Your task to perform on an android device: Open Reddit.com Image 0: 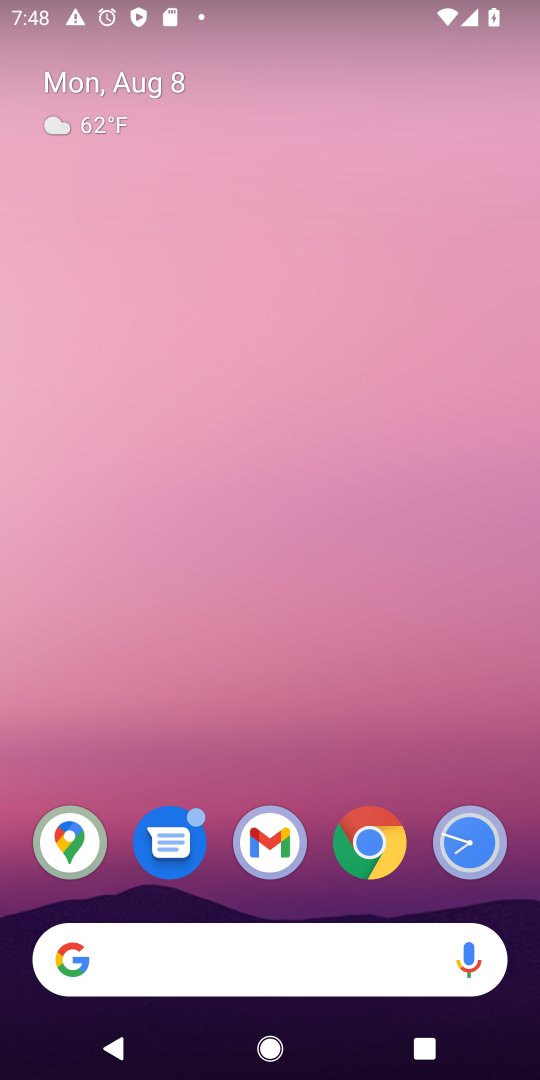
Step 0: click (371, 831)
Your task to perform on an android device: Open Reddit.com Image 1: 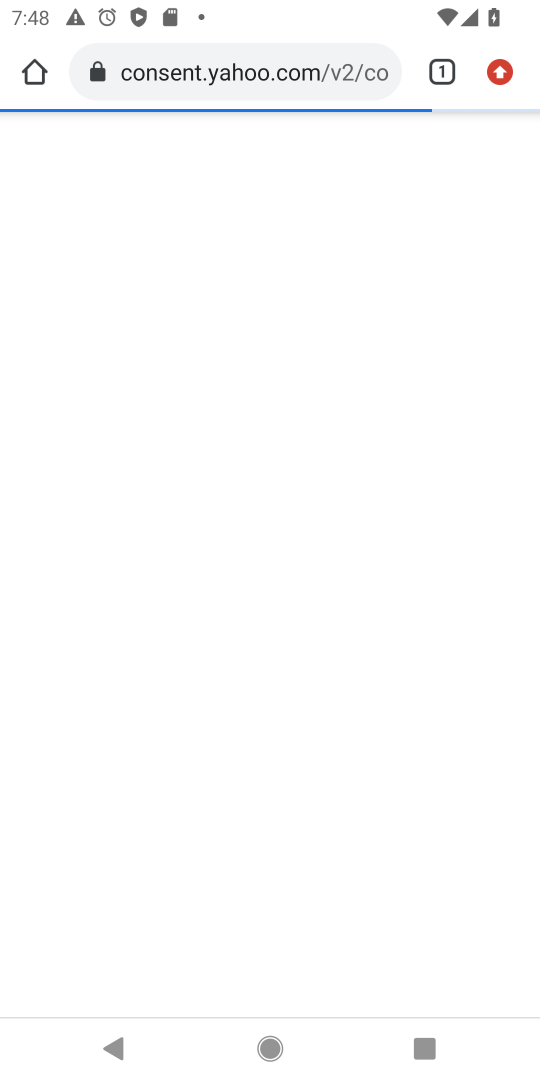
Step 1: click (331, 63)
Your task to perform on an android device: Open Reddit.com Image 2: 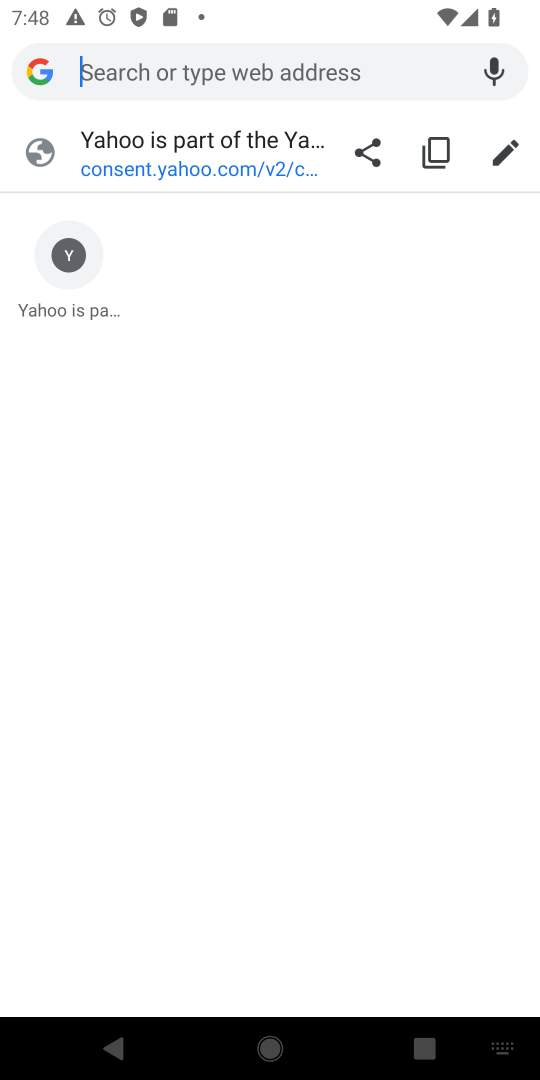
Step 2: type "Reddit.com"
Your task to perform on an android device: Open Reddit.com Image 3: 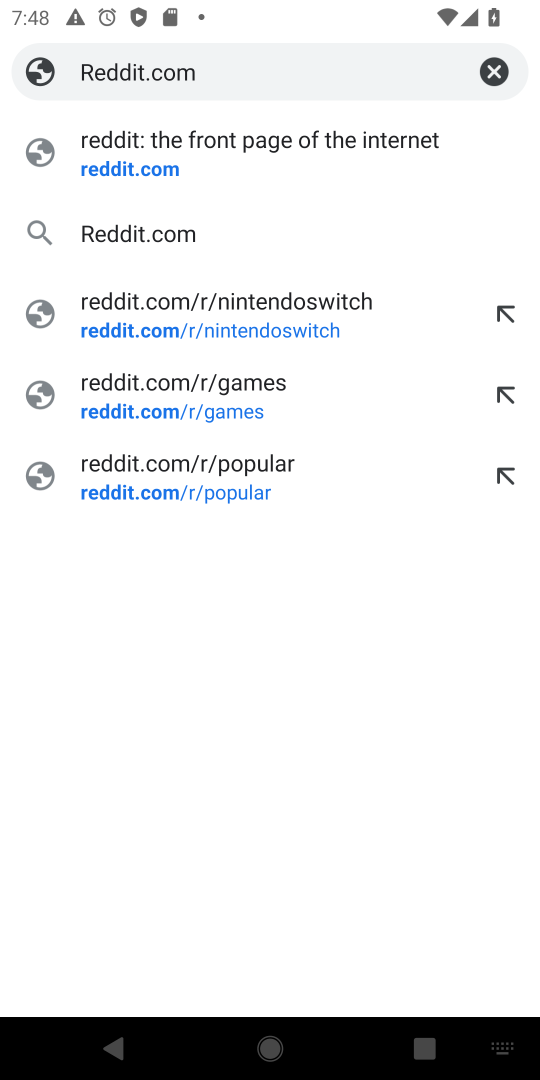
Step 3: click (158, 234)
Your task to perform on an android device: Open Reddit.com Image 4: 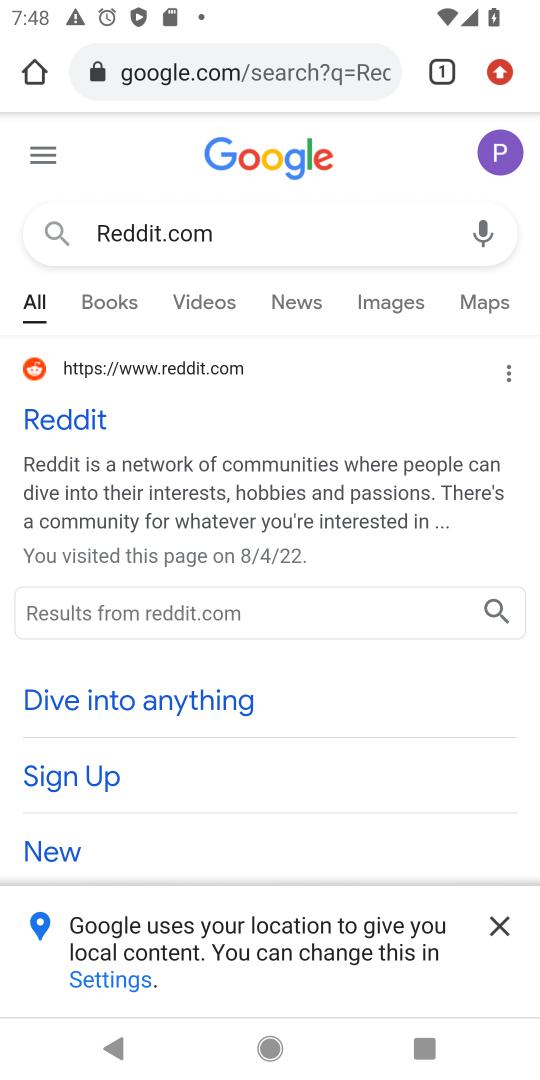
Step 4: click (31, 407)
Your task to perform on an android device: Open Reddit.com Image 5: 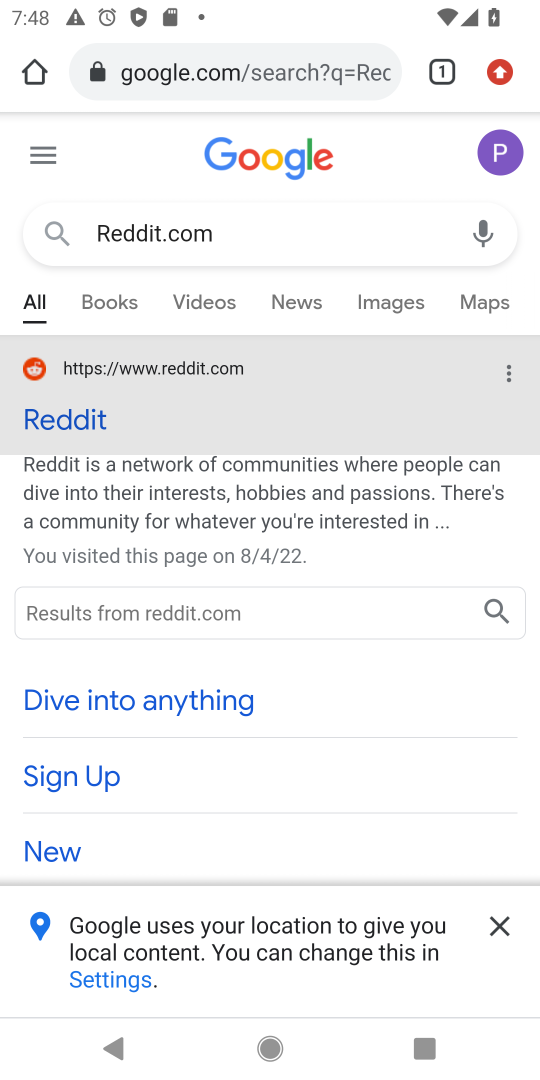
Step 5: click (109, 375)
Your task to perform on an android device: Open Reddit.com Image 6: 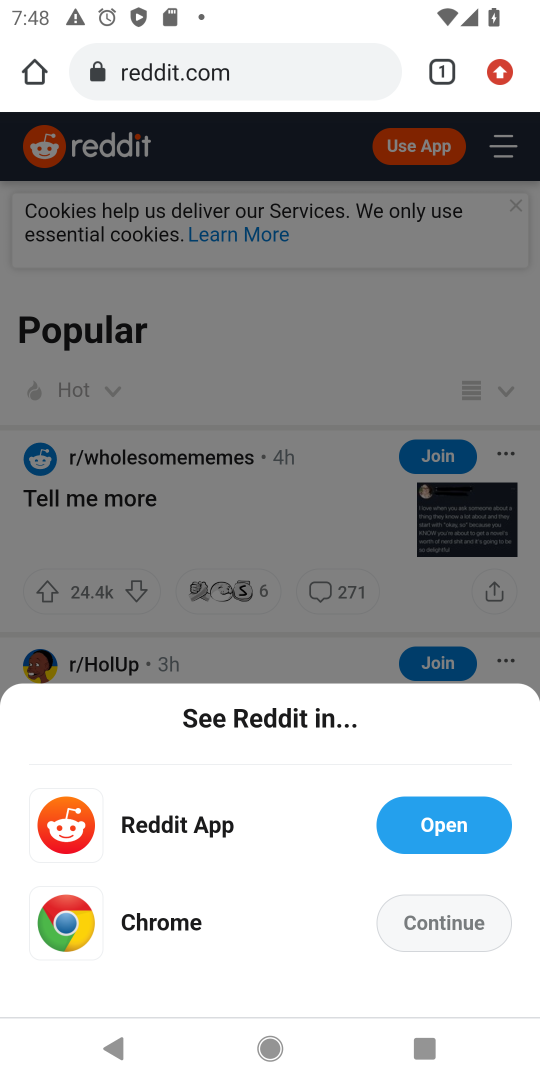
Step 6: task complete